Your task to perform on an android device: Do I have any events this weekend? Image 0: 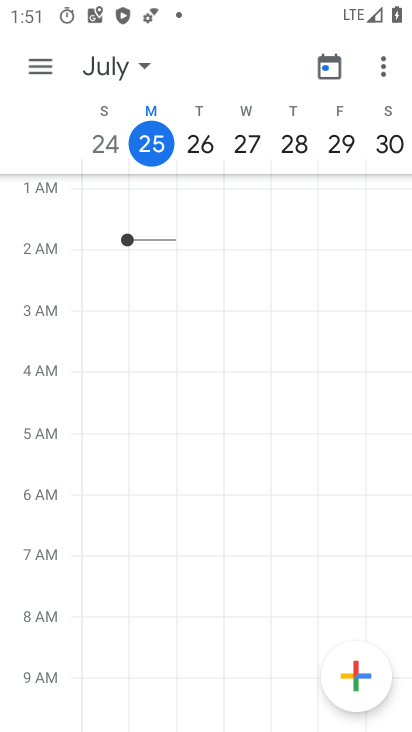
Step 0: press home button
Your task to perform on an android device: Do I have any events this weekend? Image 1: 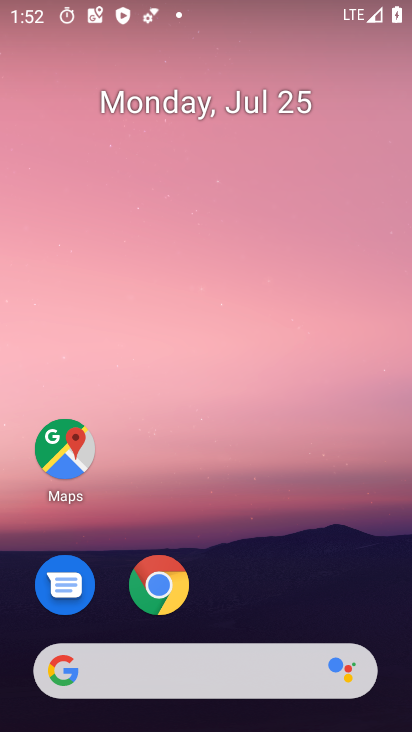
Step 1: drag from (122, 665) to (108, 204)
Your task to perform on an android device: Do I have any events this weekend? Image 2: 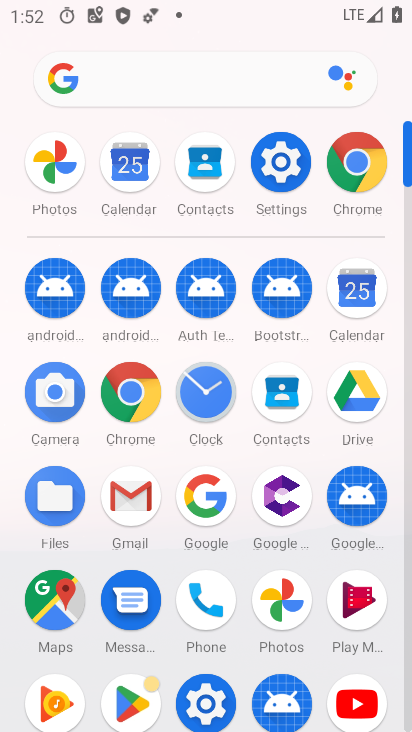
Step 2: click (361, 303)
Your task to perform on an android device: Do I have any events this weekend? Image 3: 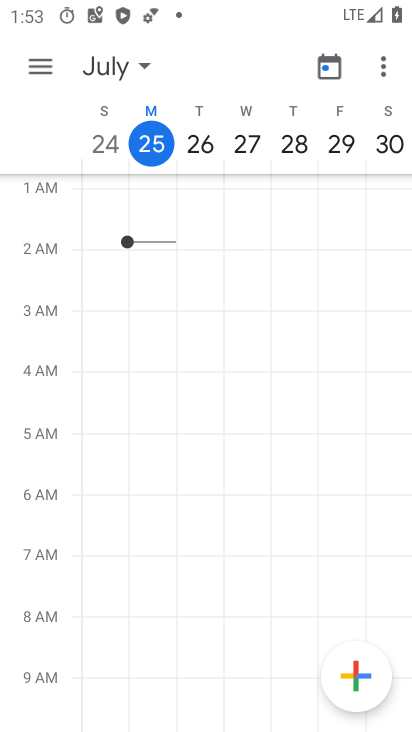
Step 3: task complete